Your task to perform on an android device: Open Google Chrome and open the bookmarks view Image 0: 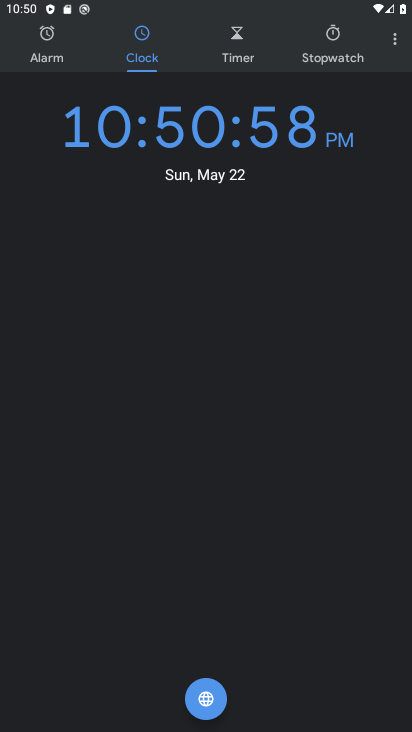
Step 0: press home button
Your task to perform on an android device: Open Google Chrome and open the bookmarks view Image 1: 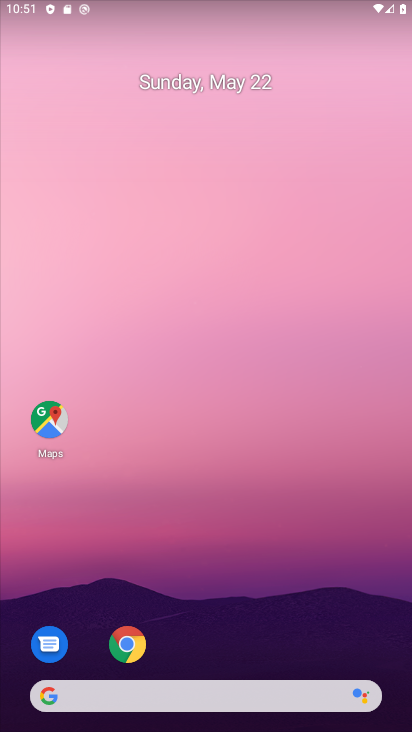
Step 1: drag from (231, 655) to (302, 115)
Your task to perform on an android device: Open Google Chrome and open the bookmarks view Image 2: 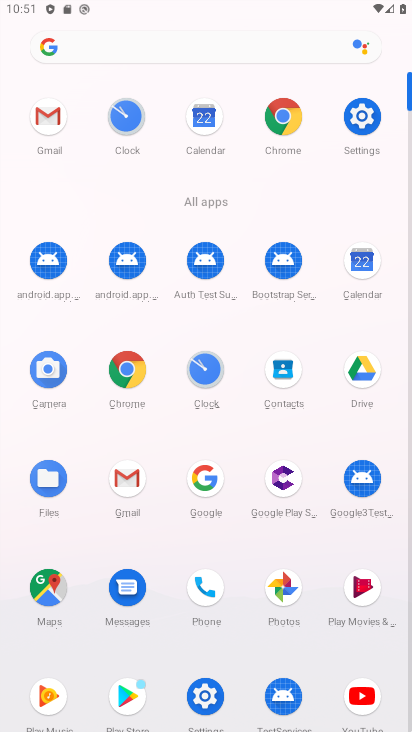
Step 2: click (288, 119)
Your task to perform on an android device: Open Google Chrome and open the bookmarks view Image 3: 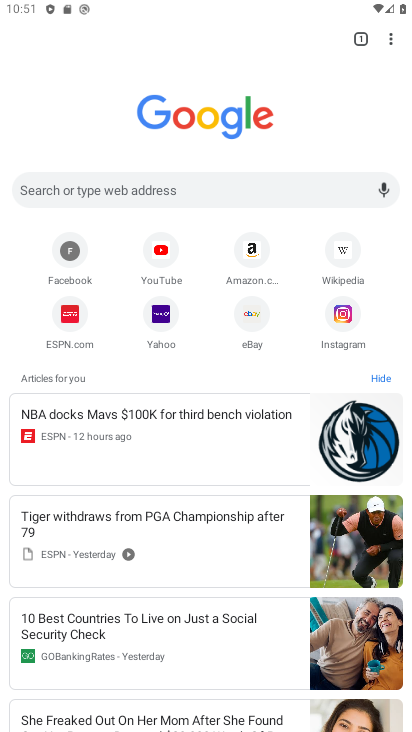
Step 3: click (388, 37)
Your task to perform on an android device: Open Google Chrome and open the bookmarks view Image 4: 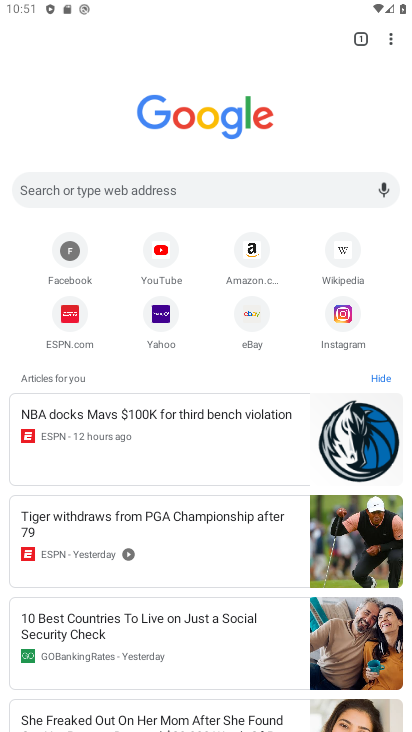
Step 4: click (390, 34)
Your task to perform on an android device: Open Google Chrome and open the bookmarks view Image 5: 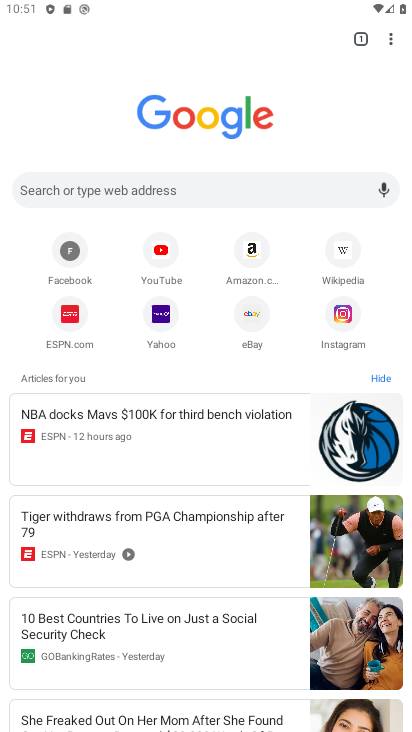
Step 5: click (390, 34)
Your task to perform on an android device: Open Google Chrome and open the bookmarks view Image 6: 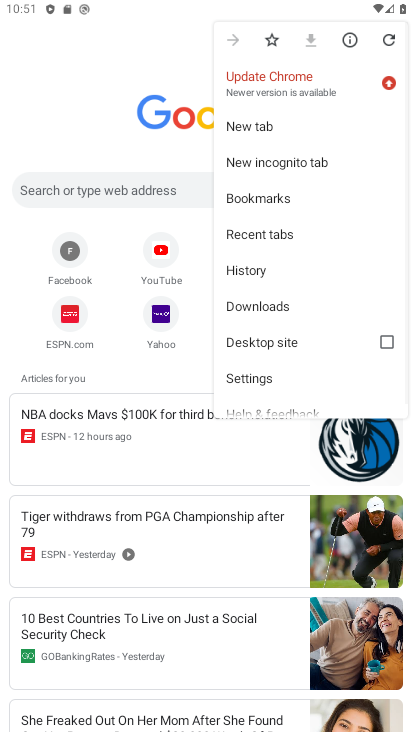
Step 6: click (324, 197)
Your task to perform on an android device: Open Google Chrome and open the bookmarks view Image 7: 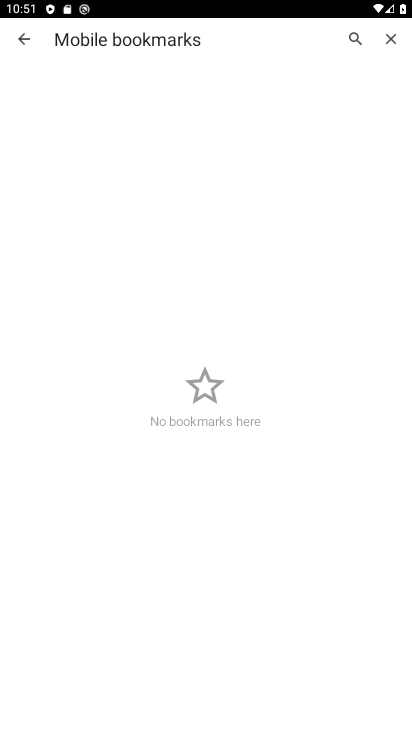
Step 7: task complete